Your task to perform on an android device: open chrome and create a bookmark for the current page Image 0: 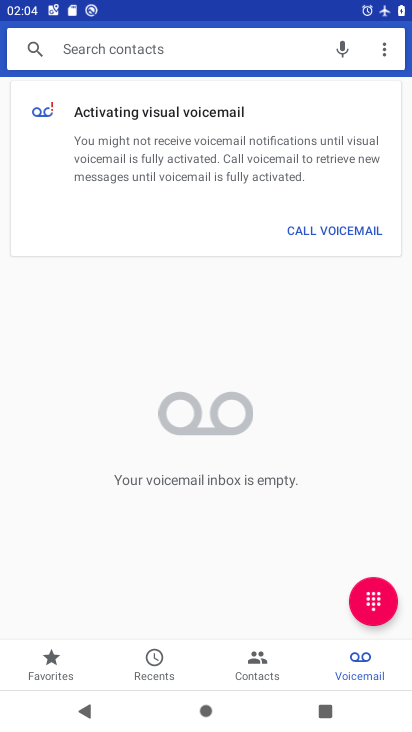
Step 0: press home button
Your task to perform on an android device: open chrome and create a bookmark for the current page Image 1: 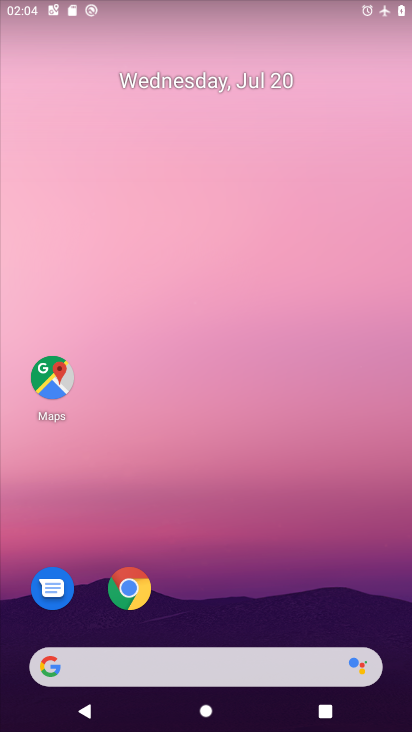
Step 1: drag from (224, 535) to (243, 358)
Your task to perform on an android device: open chrome and create a bookmark for the current page Image 2: 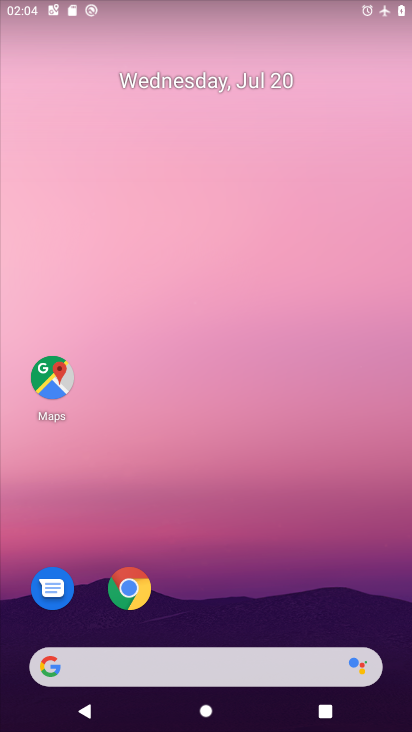
Step 2: drag from (299, 612) to (400, 126)
Your task to perform on an android device: open chrome and create a bookmark for the current page Image 3: 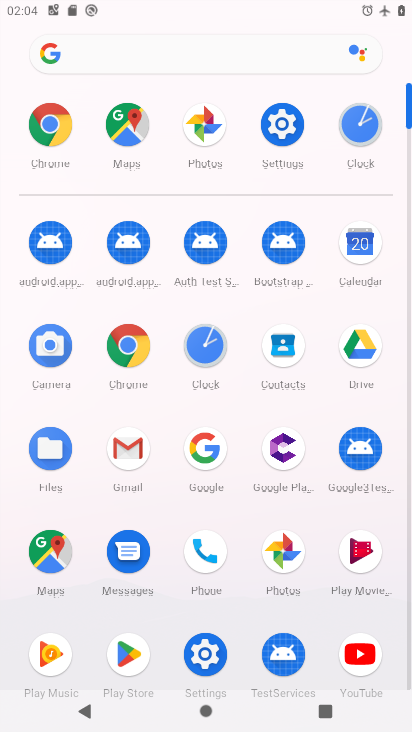
Step 3: click (53, 130)
Your task to perform on an android device: open chrome and create a bookmark for the current page Image 4: 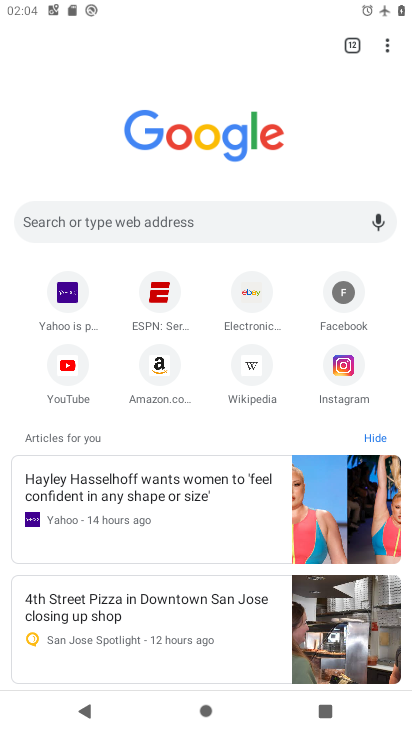
Step 4: click (393, 35)
Your task to perform on an android device: open chrome and create a bookmark for the current page Image 5: 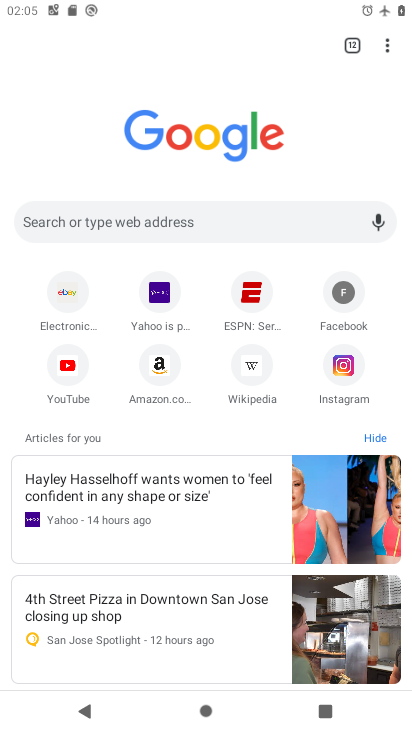
Step 5: click (398, 39)
Your task to perform on an android device: open chrome and create a bookmark for the current page Image 6: 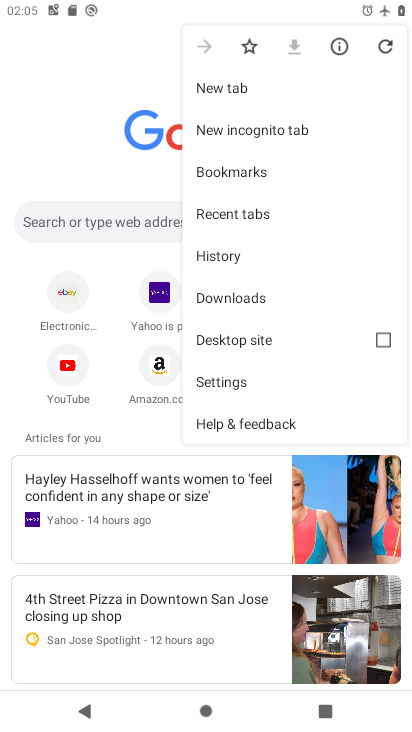
Step 6: click (250, 56)
Your task to perform on an android device: open chrome and create a bookmark for the current page Image 7: 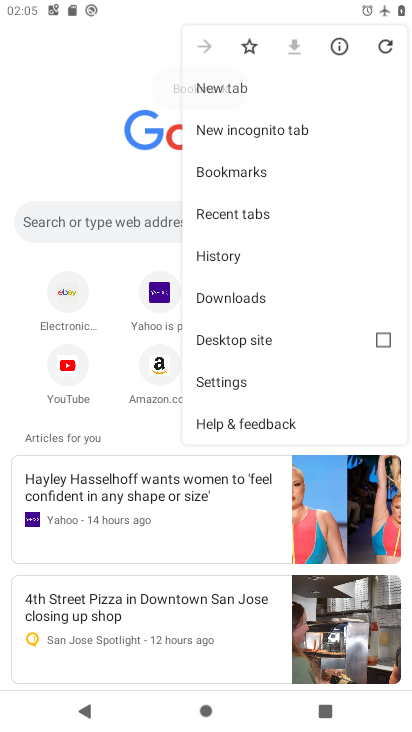
Step 7: click (252, 49)
Your task to perform on an android device: open chrome and create a bookmark for the current page Image 8: 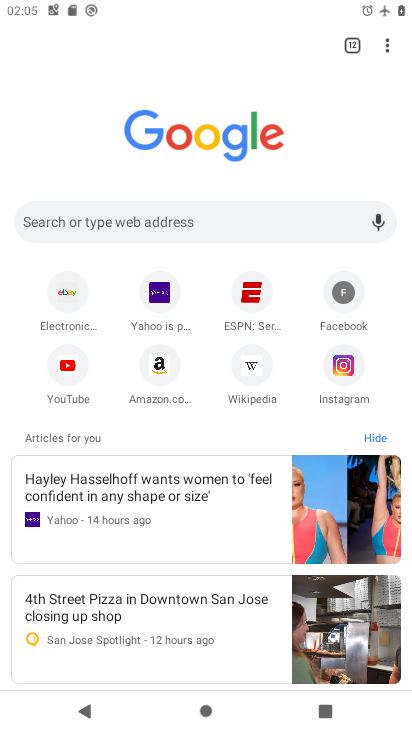
Step 8: task complete